Your task to perform on an android device: Do I have any events tomorrow? Image 0: 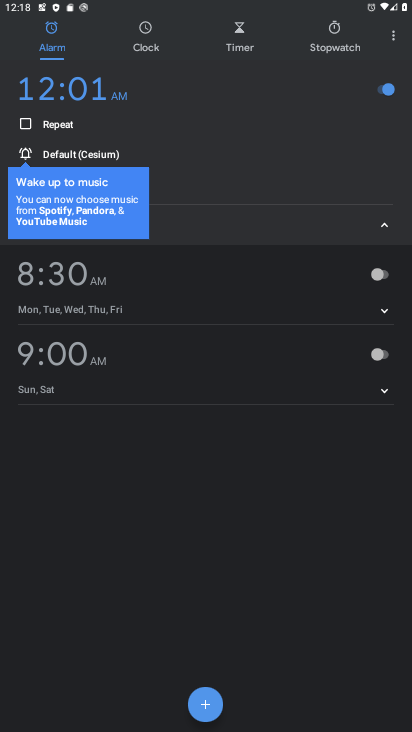
Step 0: press home button
Your task to perform on an android device: Do I have any events tomorrow? Image 1: 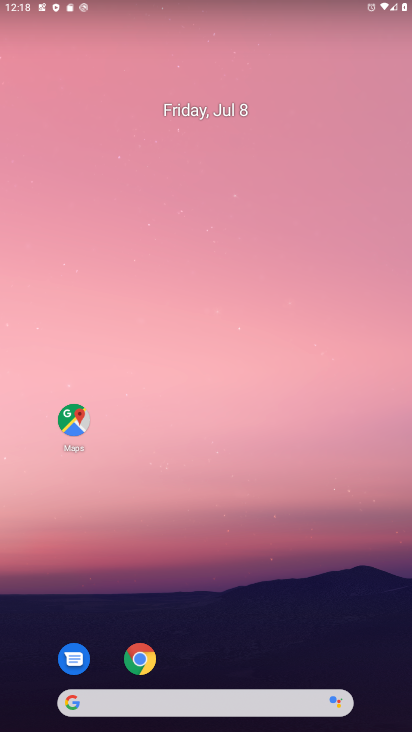
Step 1: drag from (239, 610) to (214, 190)
Your task to perform on an android device: Do I have any events tomorrow? Image 2: 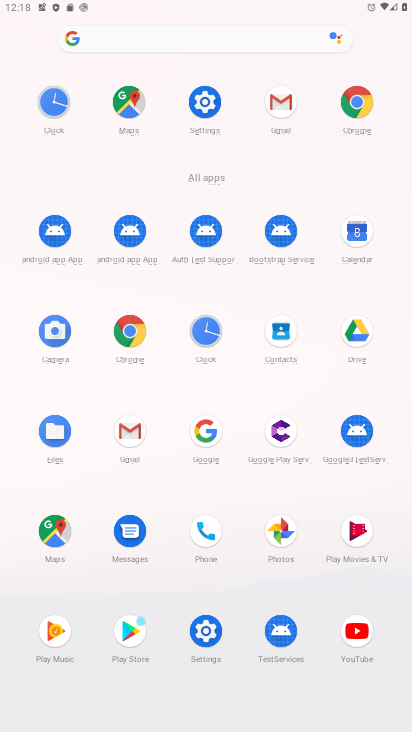
Step 2: click (359, 235)
Your task to perform on an android device: Do I have any events tomorrow? Image 3: 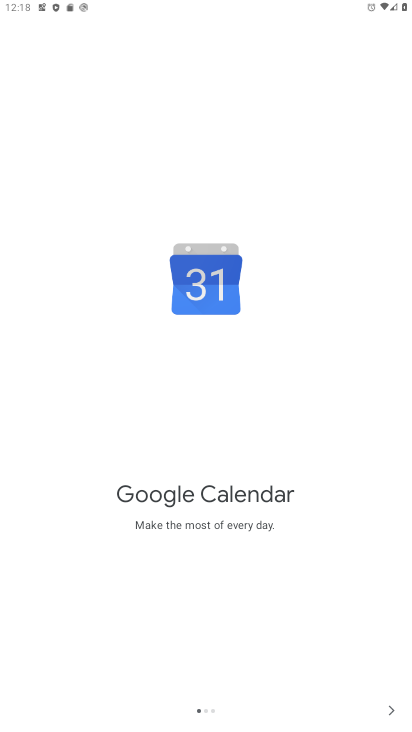
Step 3: click (393, 708)
Your task to perform on an android device: Do I have any events tomorrow? Image 4: 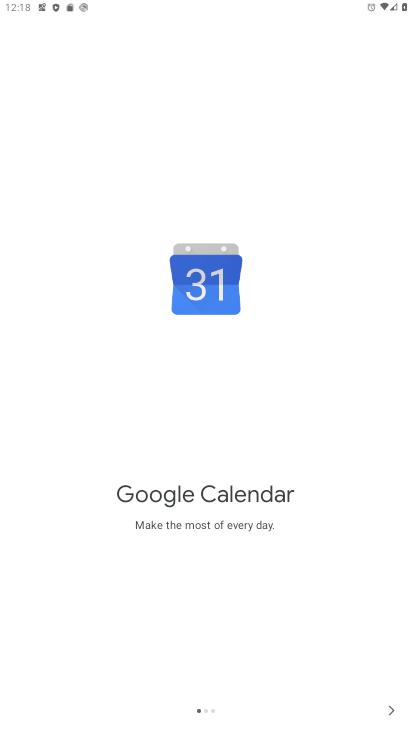
Step 4: click (393, 708)
Your task to perform on an android device: Do I have any events tomorrow? Image 5: 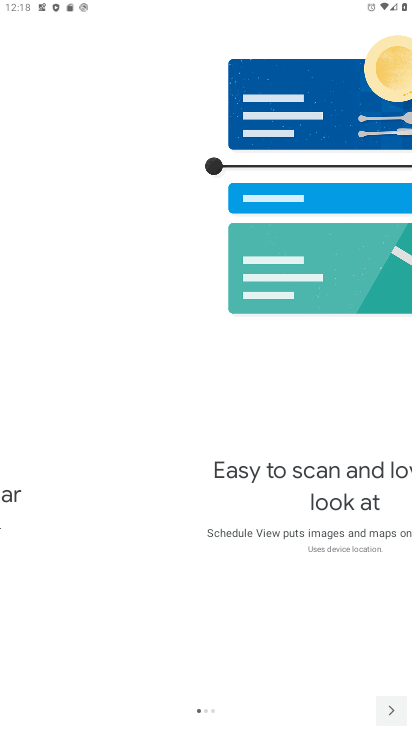
Step 5: click (393, 708)
Your task to perform on an android device: Do I have any events tomorrow? Image 6: 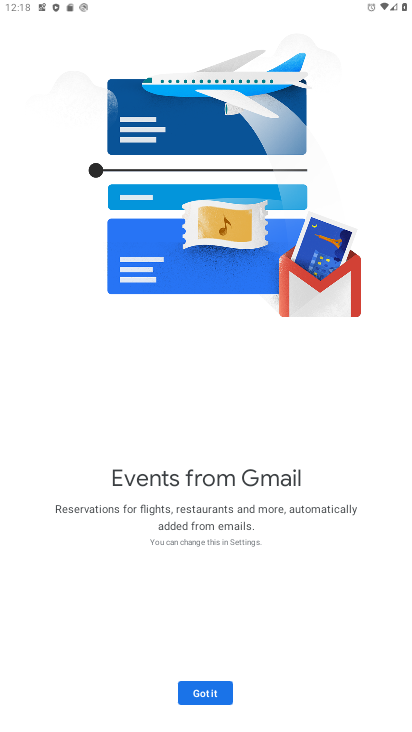
Step 6: click (210, 695)
Your task to perform on an android device: Do I have any events tomorrow? Image 7: 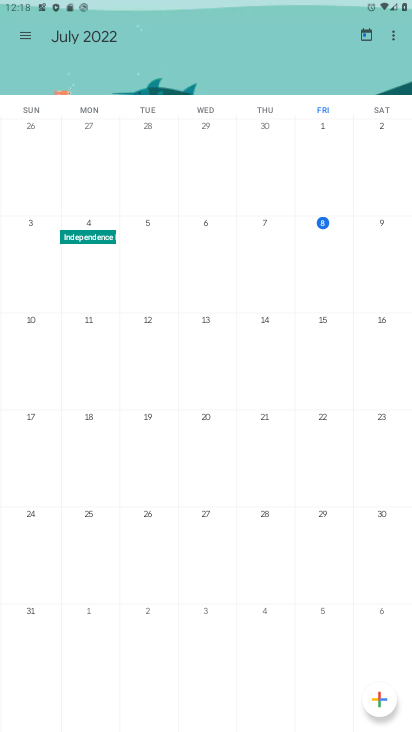
Step 7: click (379, 220)
Your task to perform on an android device: Do I have any events tomorrow? Image 8: 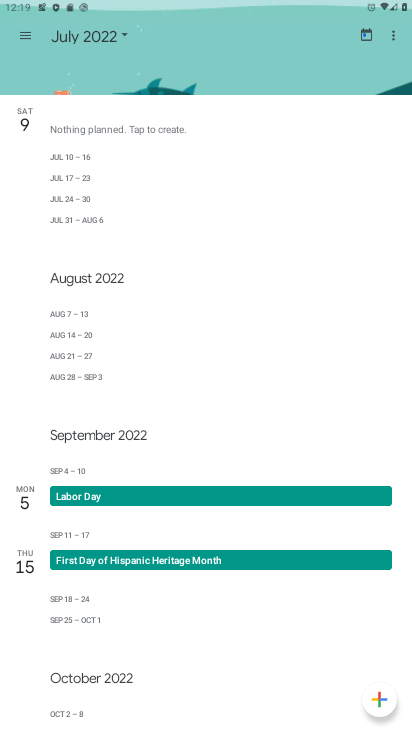
Step 8: task complete